Your task to perform on an android device: delete the emails in spam in the gmail app Image 0: 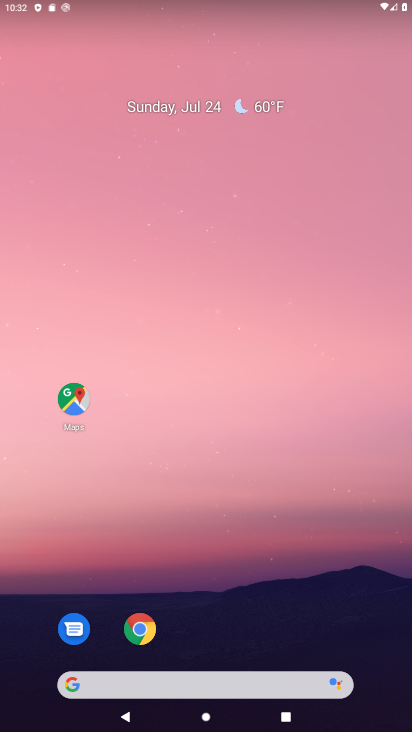
Step 0: drag from (226, 393) to (217, 131)
Your task to perform on an android device: delete the emails in spam in the gmail app Image 1: 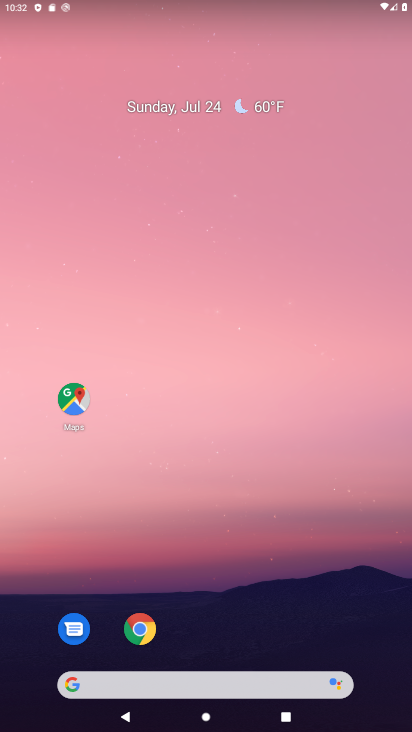
Step 1: drag from (281, 681) to (300, 162)
Your task to perform on an android device: delete the emails in spam in the gmail app Image 2: 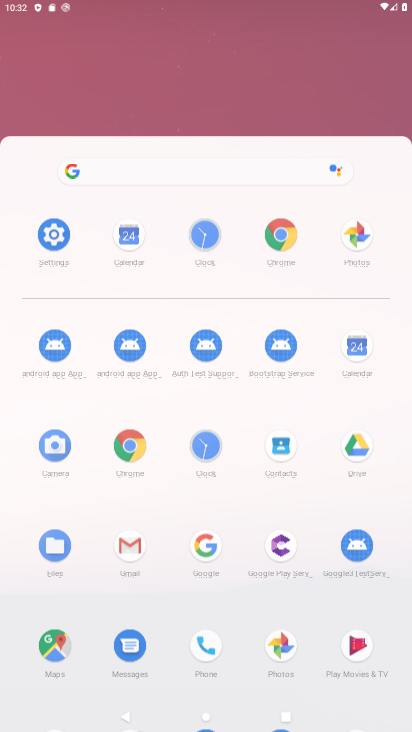
Step 2: click (198, 135)
Your task to perform on an android device: delete the emails in spam in the gmail app Image 3: 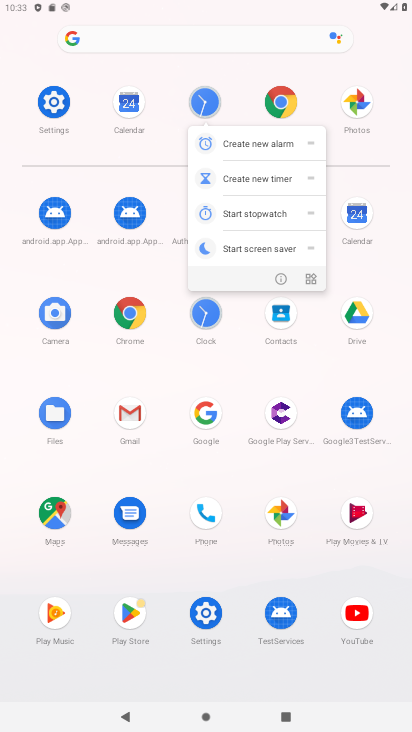
Step 3: click (128, 411)
Your task to perform on an android device: delete the emails in spam in the gmail app Image 4: 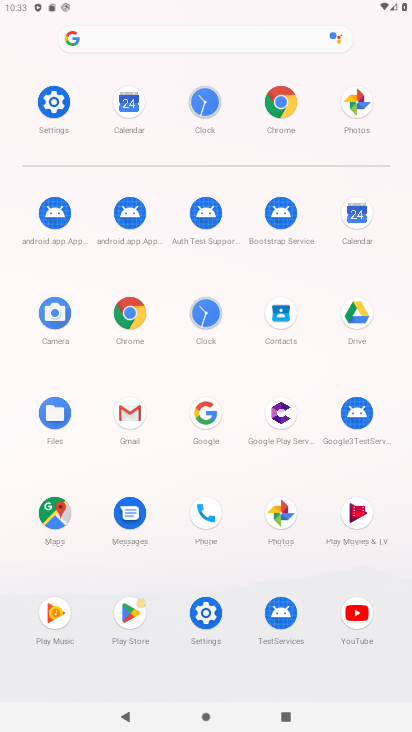
Step 4: click (124, 411)
Your task to perform on an android device: delete the emails in spam in the gmail app Image 5: 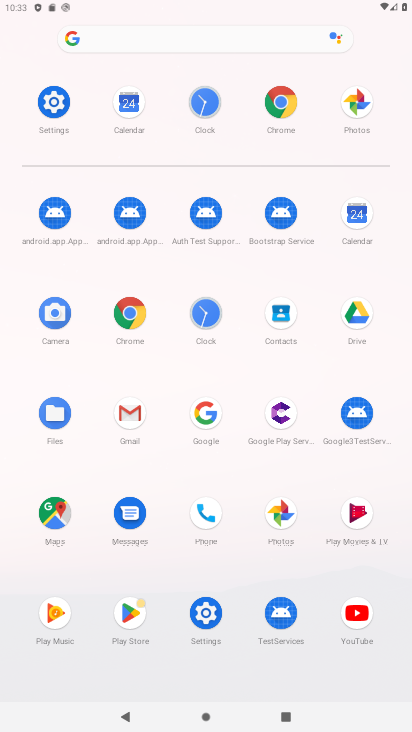
Step 5: click (124, 411)
Your task to perform on an android device: delete the emails in spam in the gmail app Image 6: 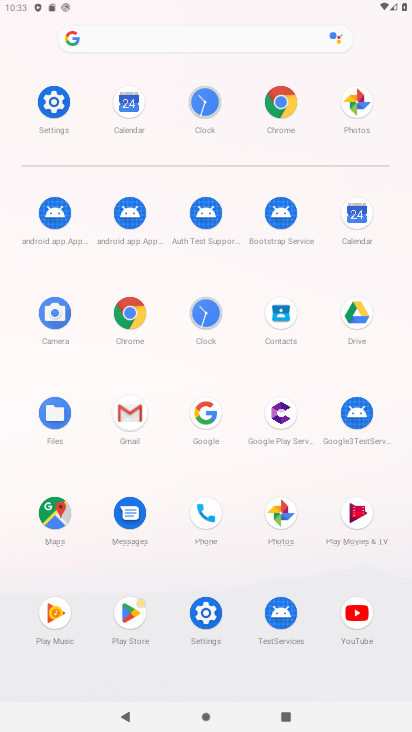
Step 6: click (123, 412)
Your task to perform on an android device: delete the emails in spam in the gmail app Image 7: 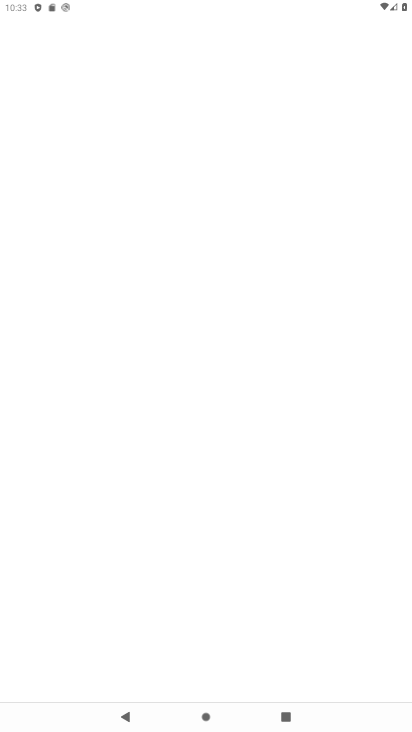
Step 7: click (128, 412)
Your task to perform on an android device: delete the emails in spam in the gmail app Image 8: 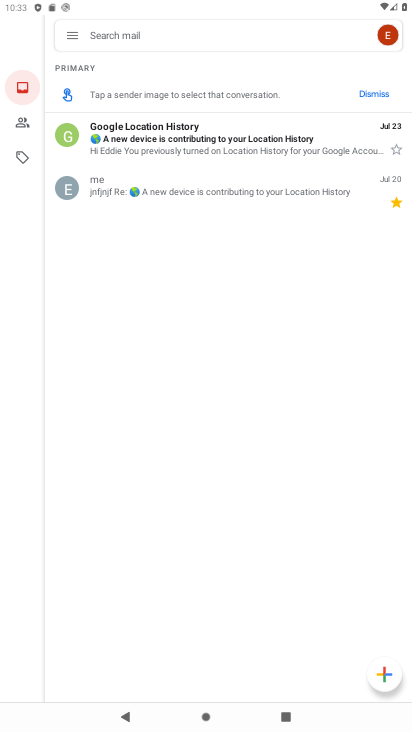
Step 8: click (132, 412)
Your task to perform on an android device: delete the emails in spam in the gmail app Image 9: 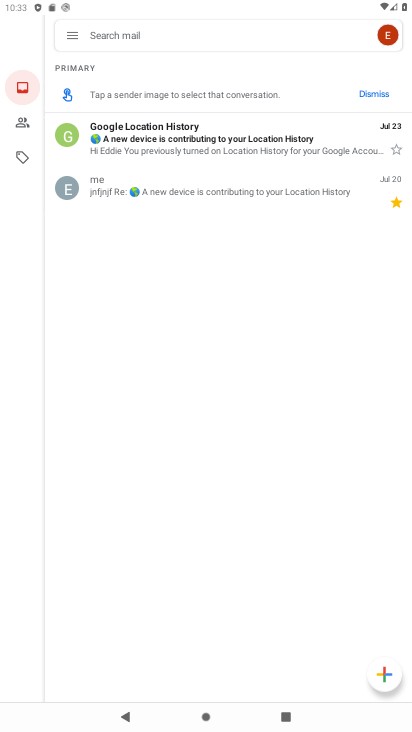
Step 9: click (25, 90)
Your task to perform on an android device: delete the emails in spam in the gmail app Image 10: 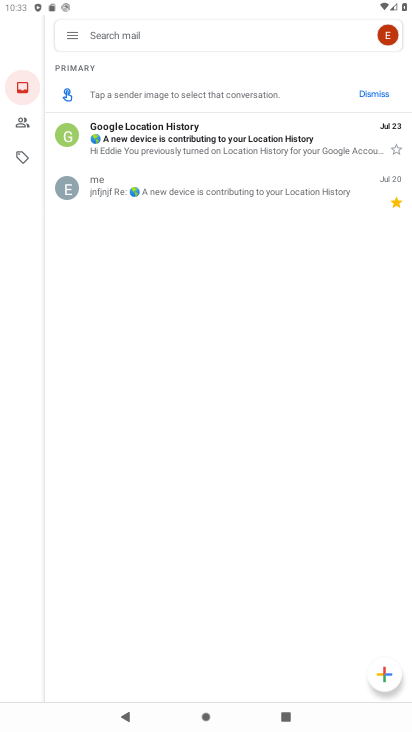
Step 10: click (63, 33)
Your task to perform on an android device: delete the emails in spam in the gmail app Image 11: 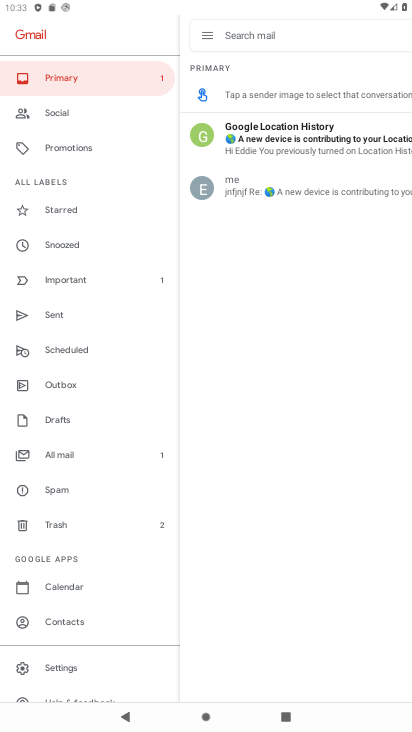
Step 11: click (59, 493)
Your task to perform on an android device: delete the emails in spam in the gmail app Image 12: 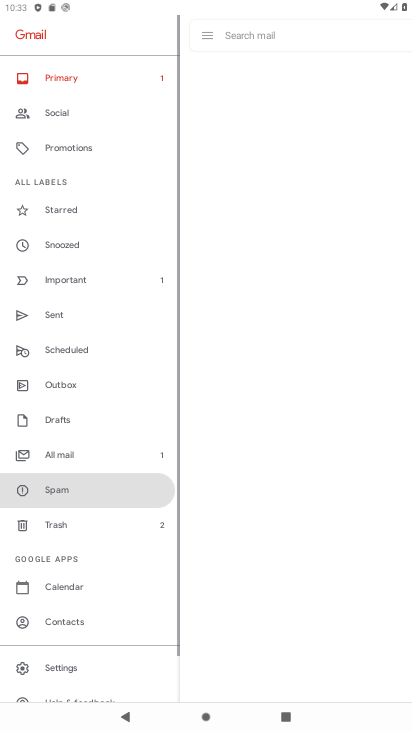
Step 12: click (59, 490)
Your task to perform on an android device: delete the emails in spam in the gmail app Image 13: 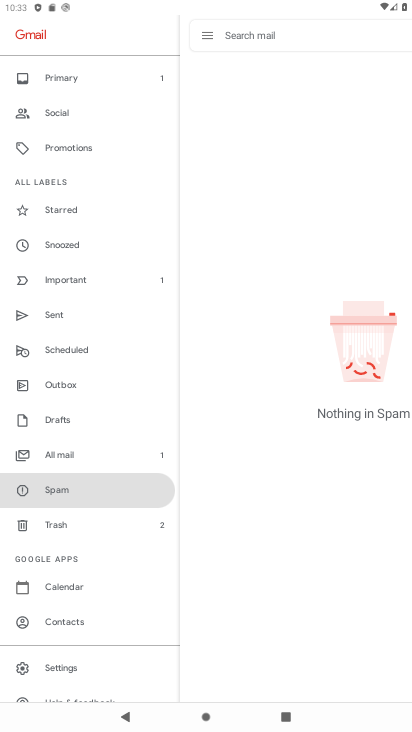
Step 13: click (92, 487)
Your task to perform on an android device: delete the emails in spam in the gmail app Image 14: 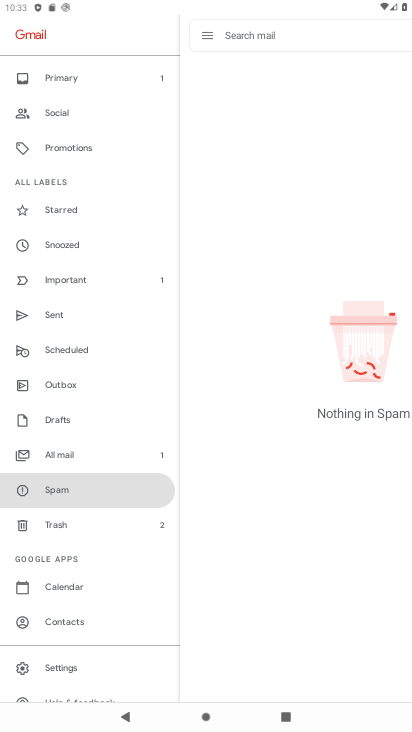
Step 14: click (71, 478)
Your task to perform on an android device: delete the emails in spam in the gmail app Image 15: 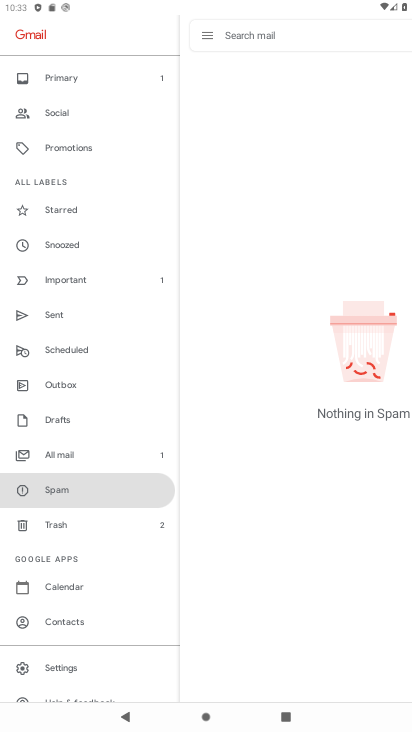
Step 15: click (76, 478)
Your task to perform on an android device: delete the emails in spam in the gmail app Image 16: 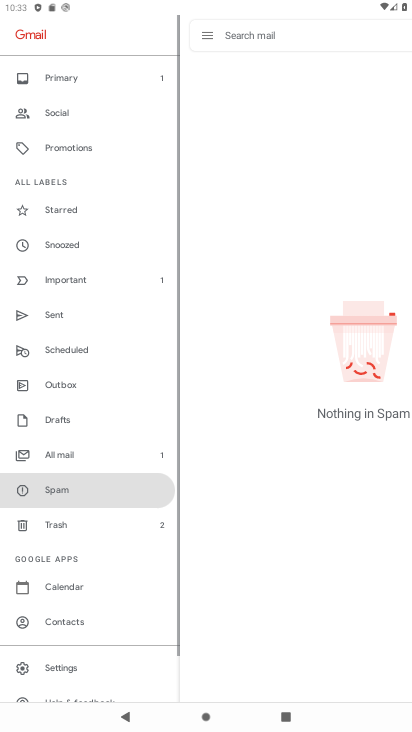
Step 16: click (81, 477)
Your task to perform on an android device: delete the emails in spam in the gmail app Image 17: 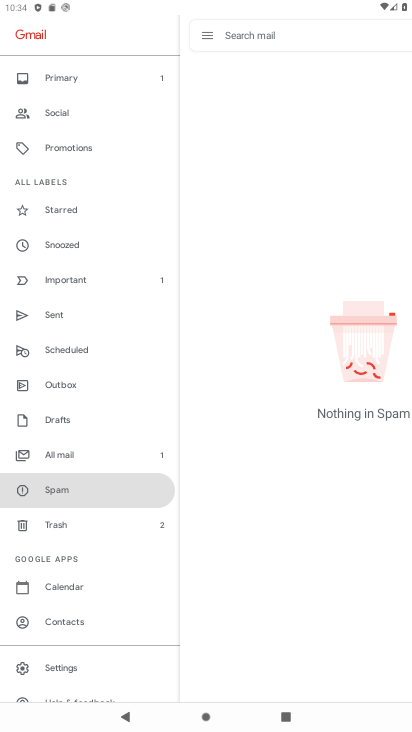
Step 17: click (65, 491)
Your task to perform on an android device: delete the emails in spam in the gmail app Image 18: 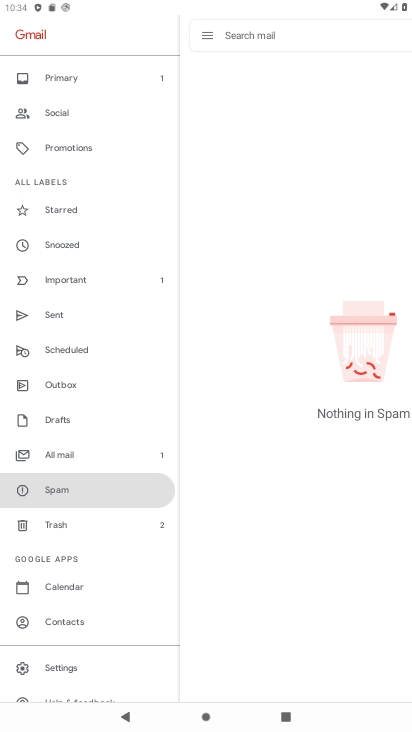
Step 18: task complete